Your task to perform on an android device: Add razer naga to the cart on ebay, then select checkout. Image 0: 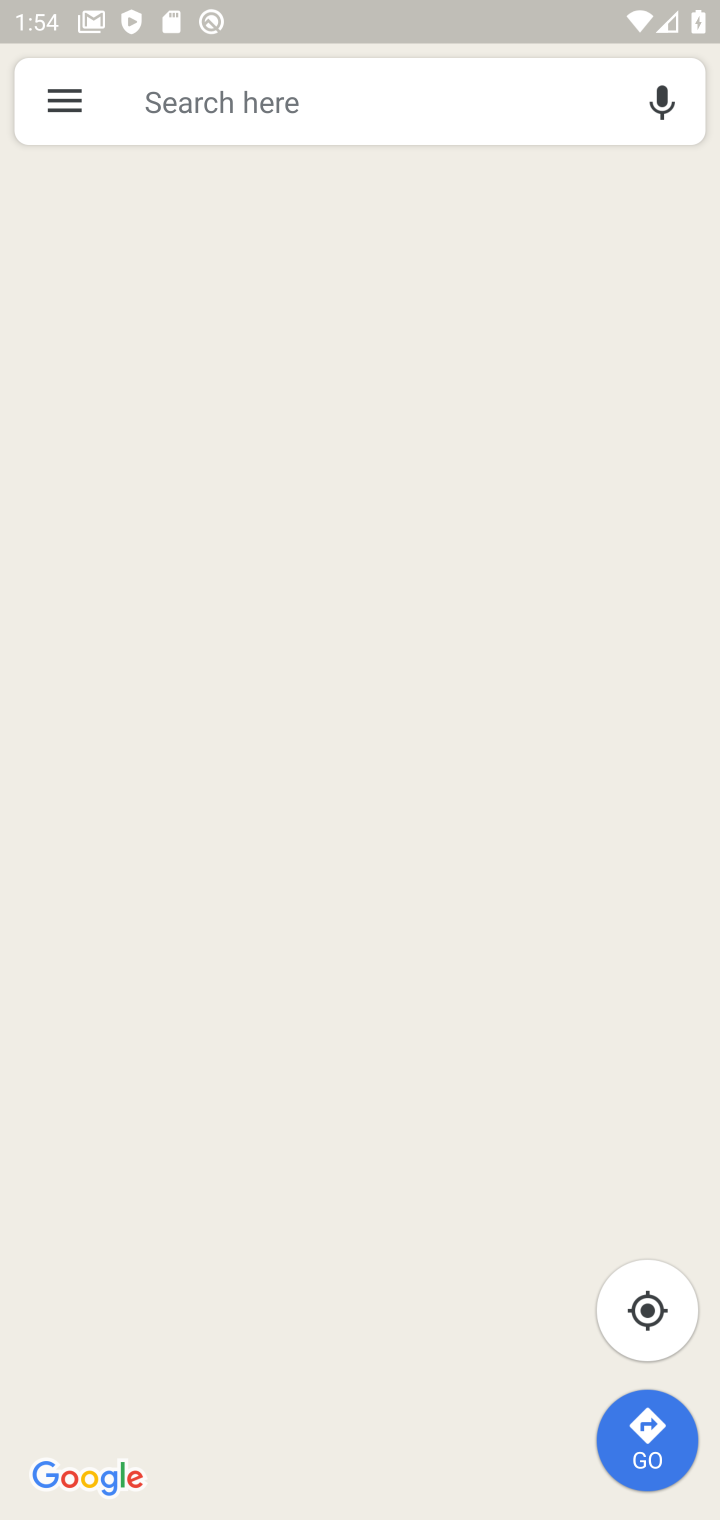
Step 0: press home button
Your task to perform on an android device: Add razer naga to the cart on ebay, then select checkout. Image 1: 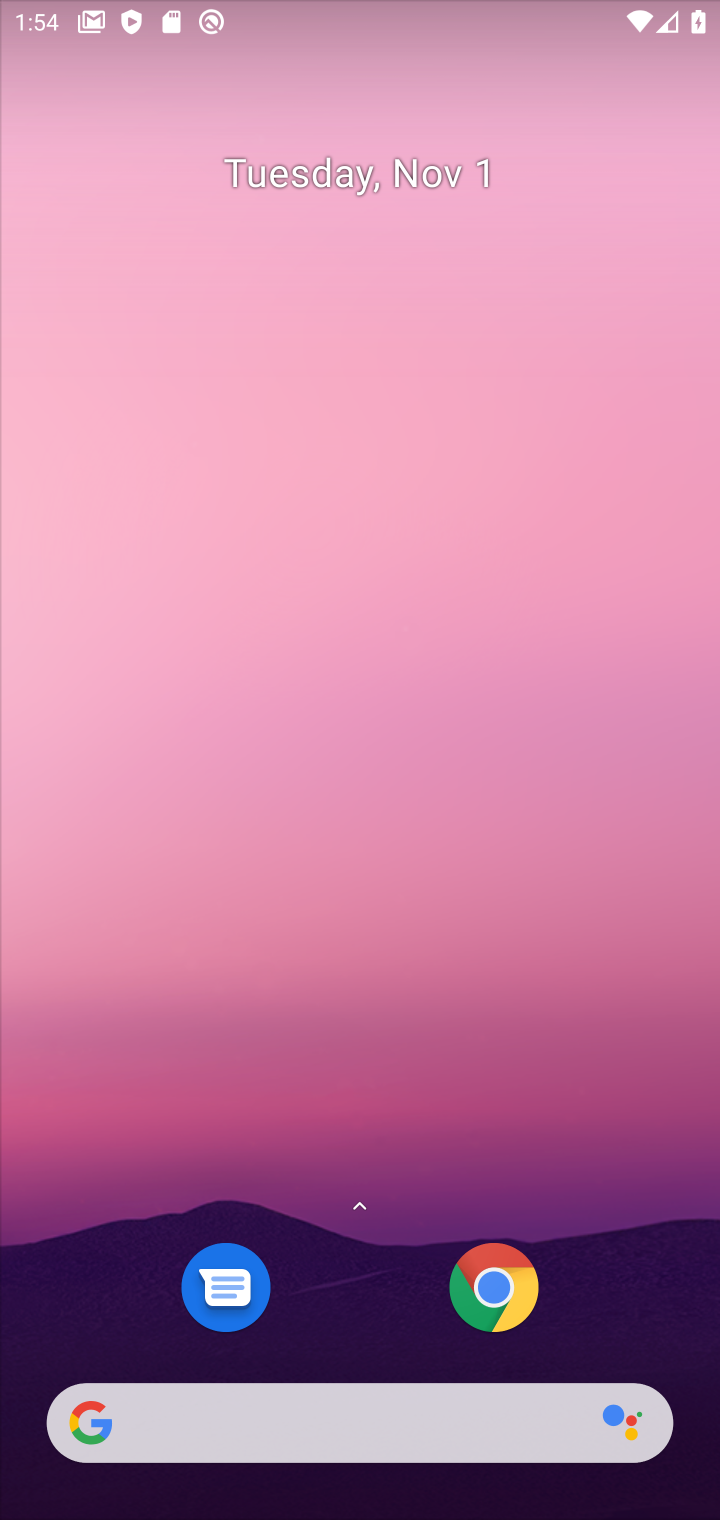
Step 1: drag from (348, 1257) to (509, 89)
Your task to perform on an android device: Add razer naga to the cart on ebay, then select checkout. Image 2: 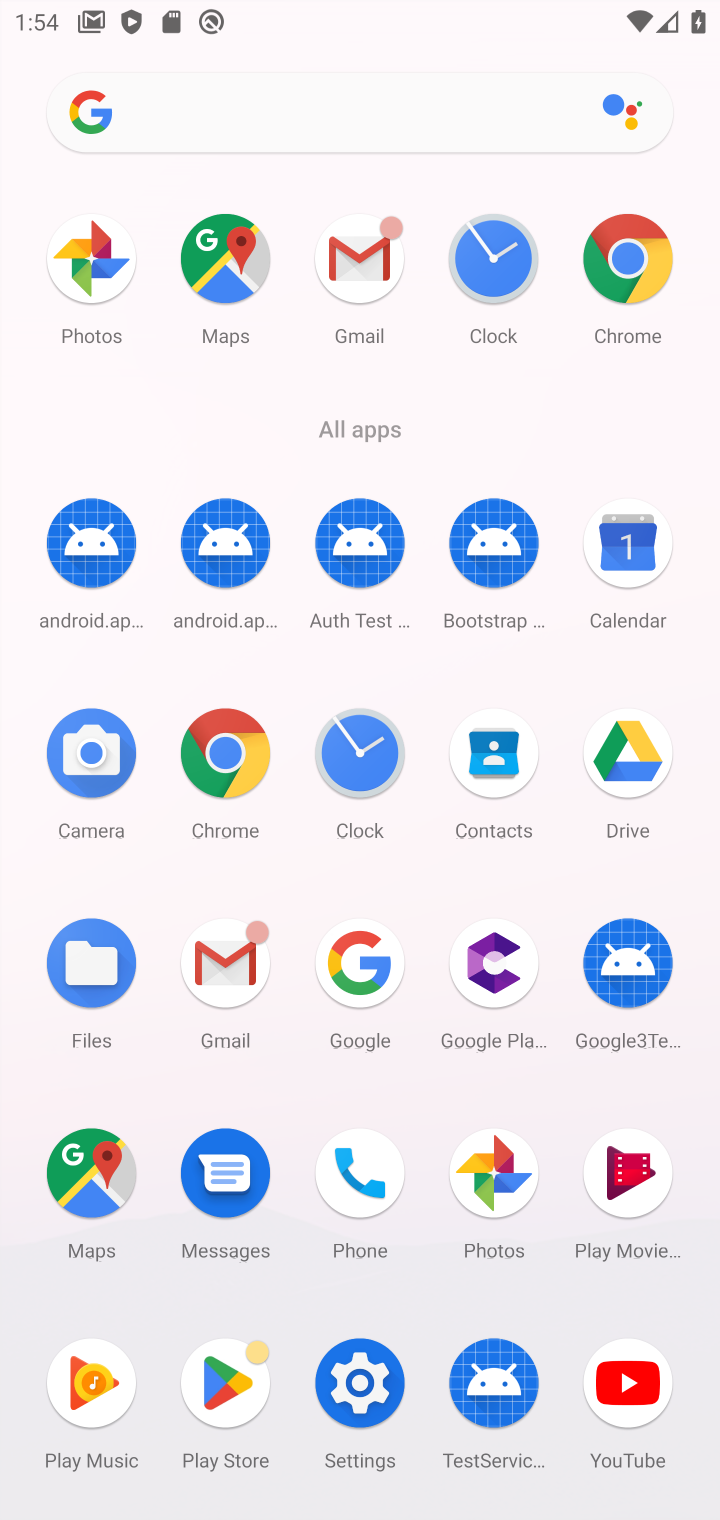
Step 2: click (219, 749)
Your task to perform on an android device: Add razer naga to the cart on ebay, then select checkout. Image 3: 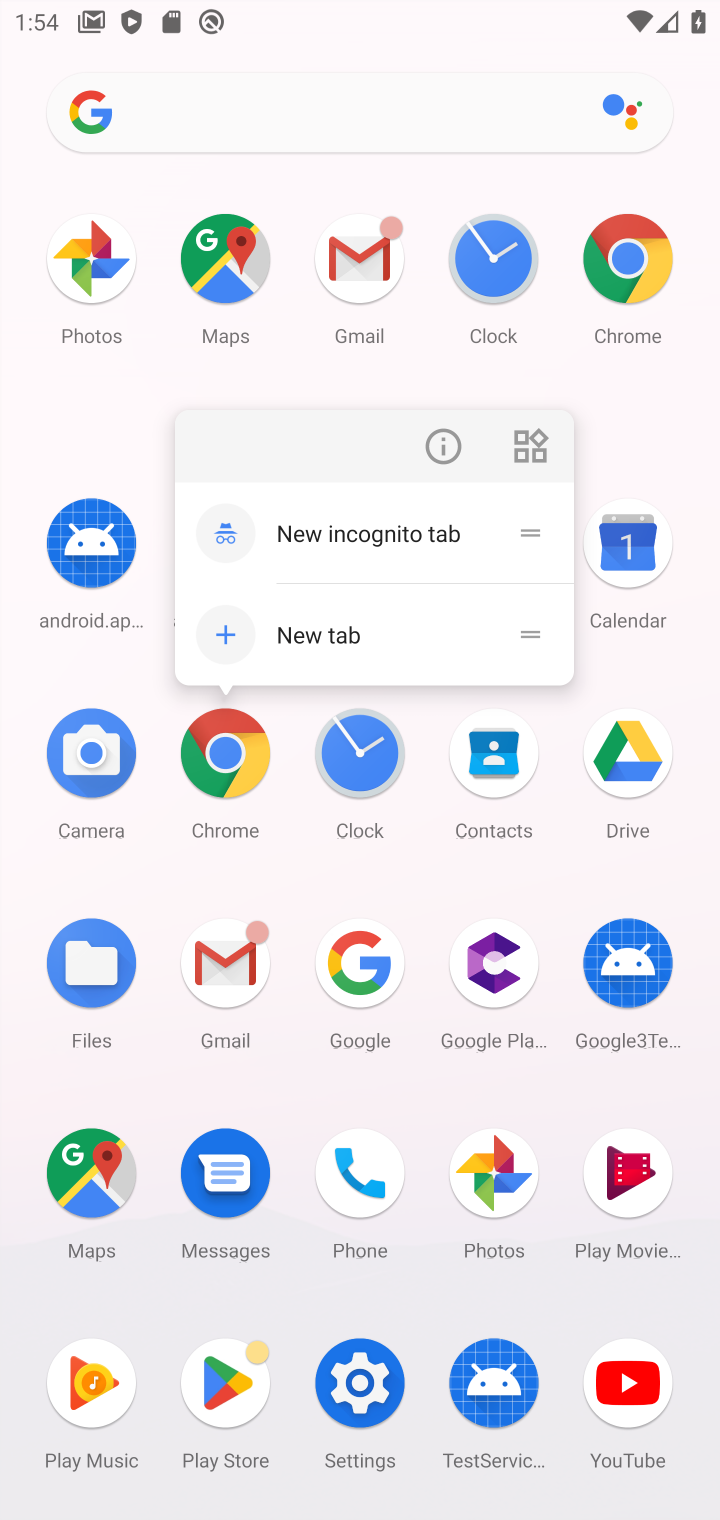
Step 3: click (227, 755)
Your task to perform on an android device: Add razer naga to the cart on ebay, then select checkout. Image 4: 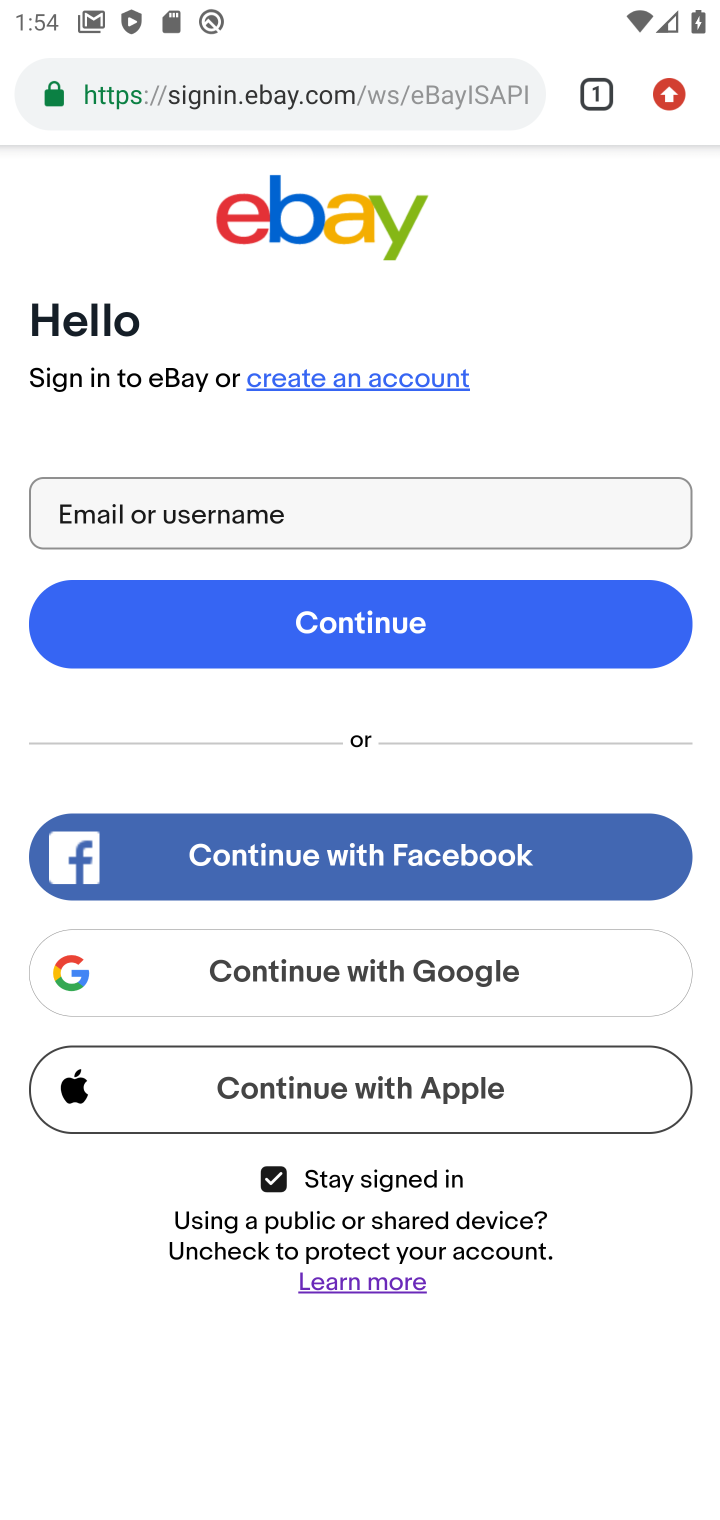
Step 4: click (348, 87)
Your task to perform on an android device: Add razer naga to the cart on ebay, then select checkout. Image 5: 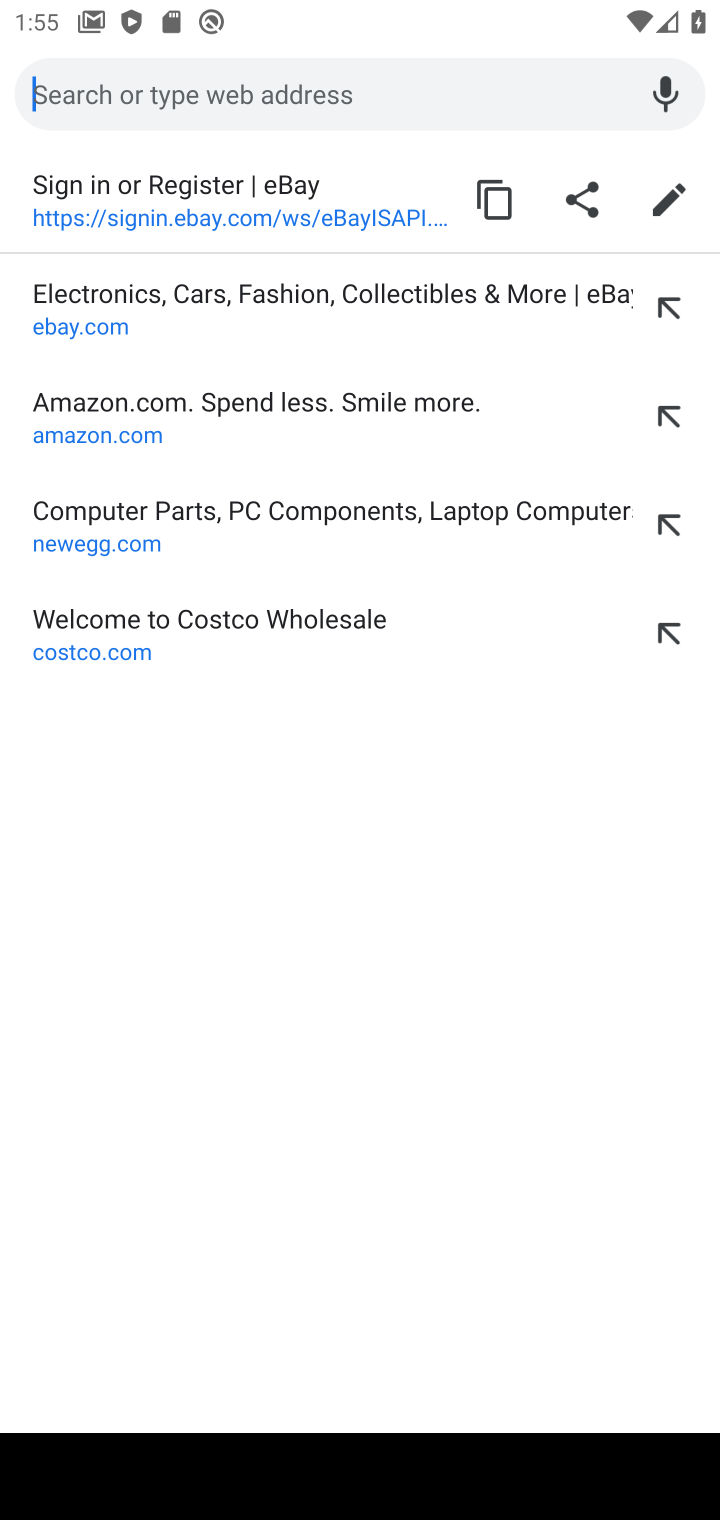
Step 5: type "ebay.com"
Your task to perform on an android device: Add razer naga to the cart on ebay, then select checkout. Image 6: 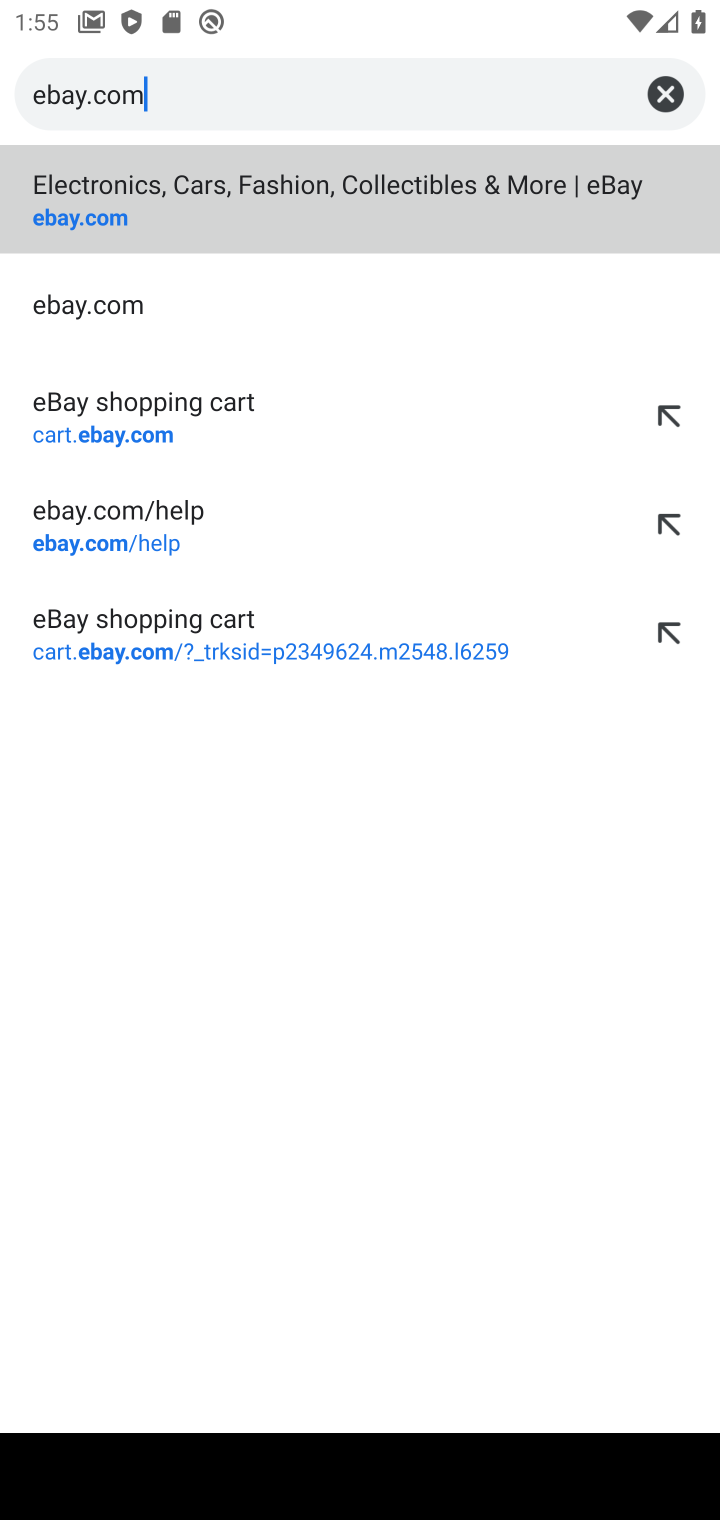
Step 6: press enter
Your task to perform on an android device: Add razer naga to the cart on ebay, then select checkout. Image 7: 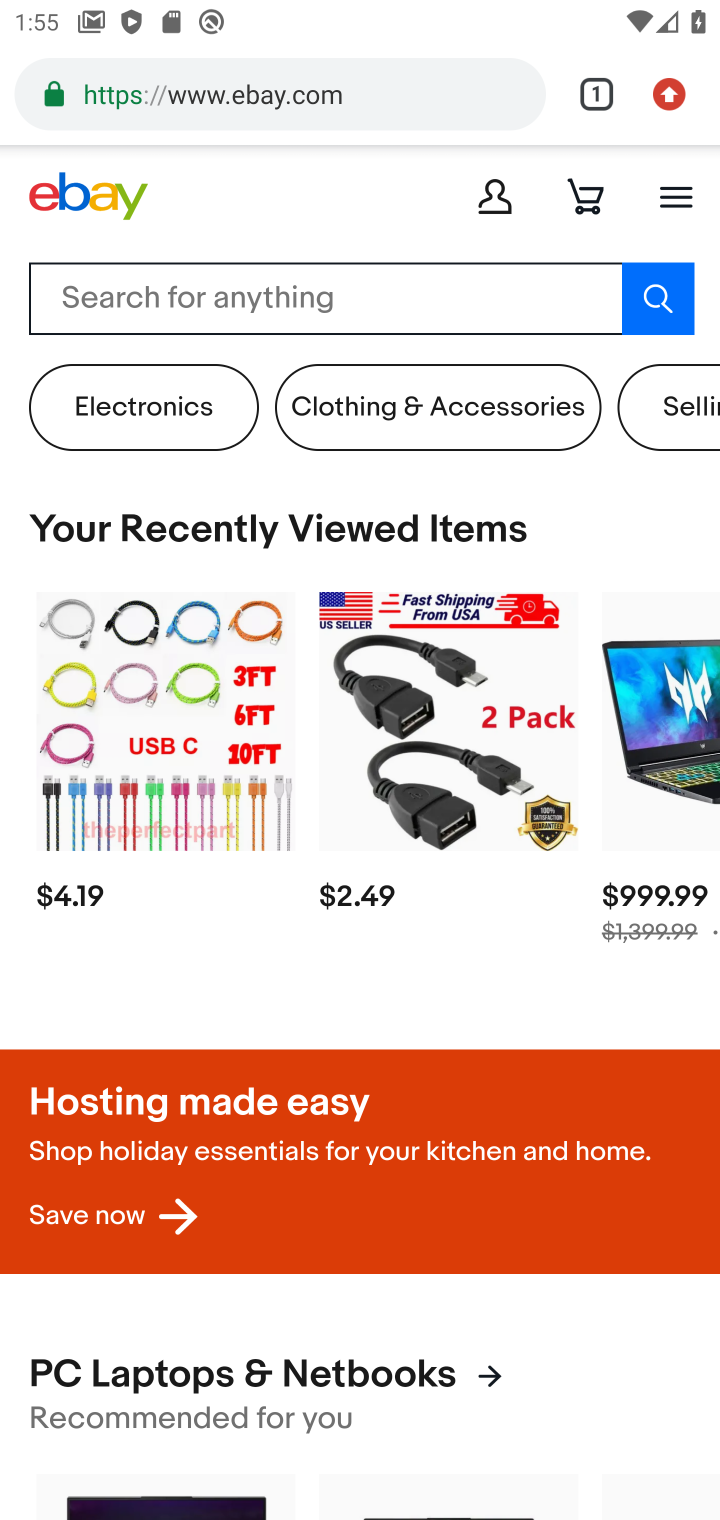
Step 7: click (310, 284)
Your task to perform on an android device: Add razer naga to the cart on ebay, then select checkout. Image 8: 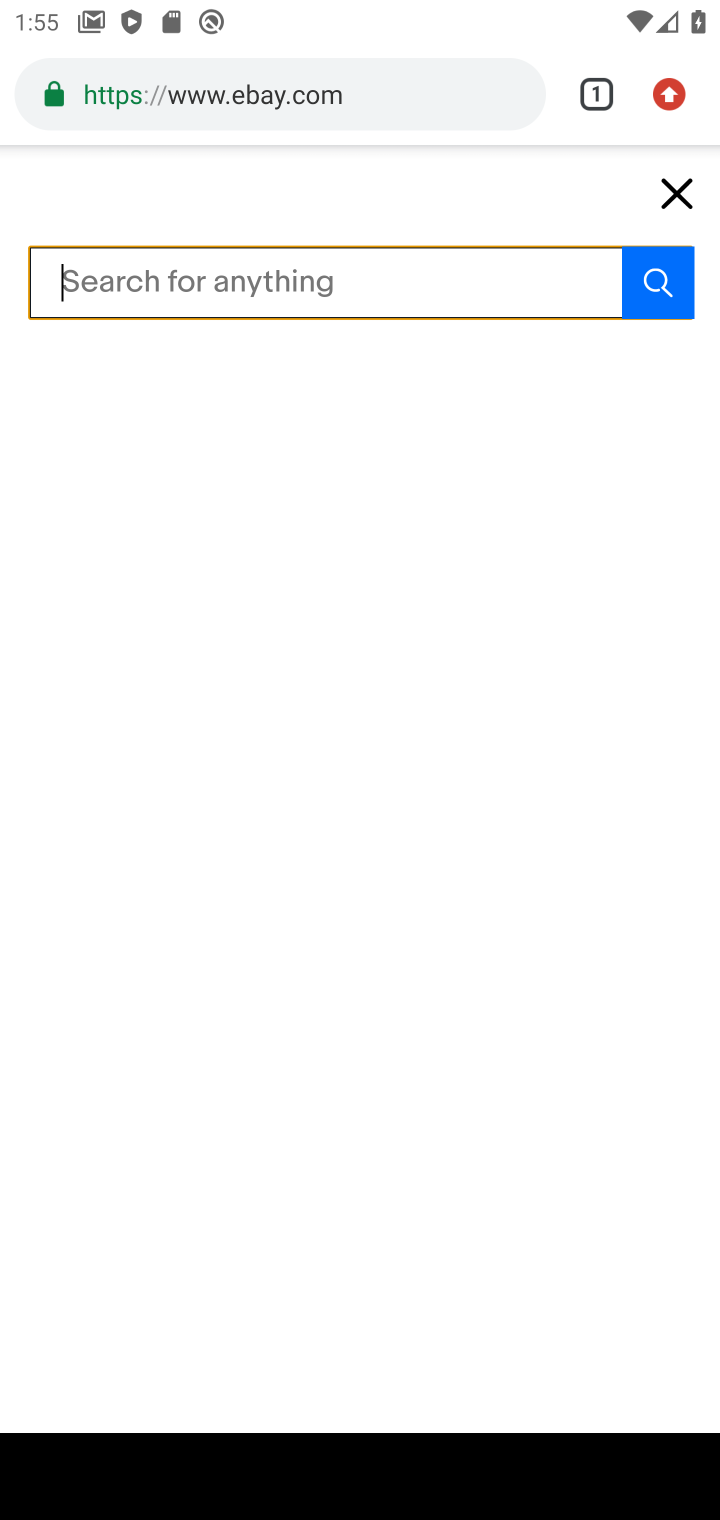
Step 8: type "razer naga"
Your task to perform on an android device: Add razer naga to the cart on ebay, then select checkout. Image 9: 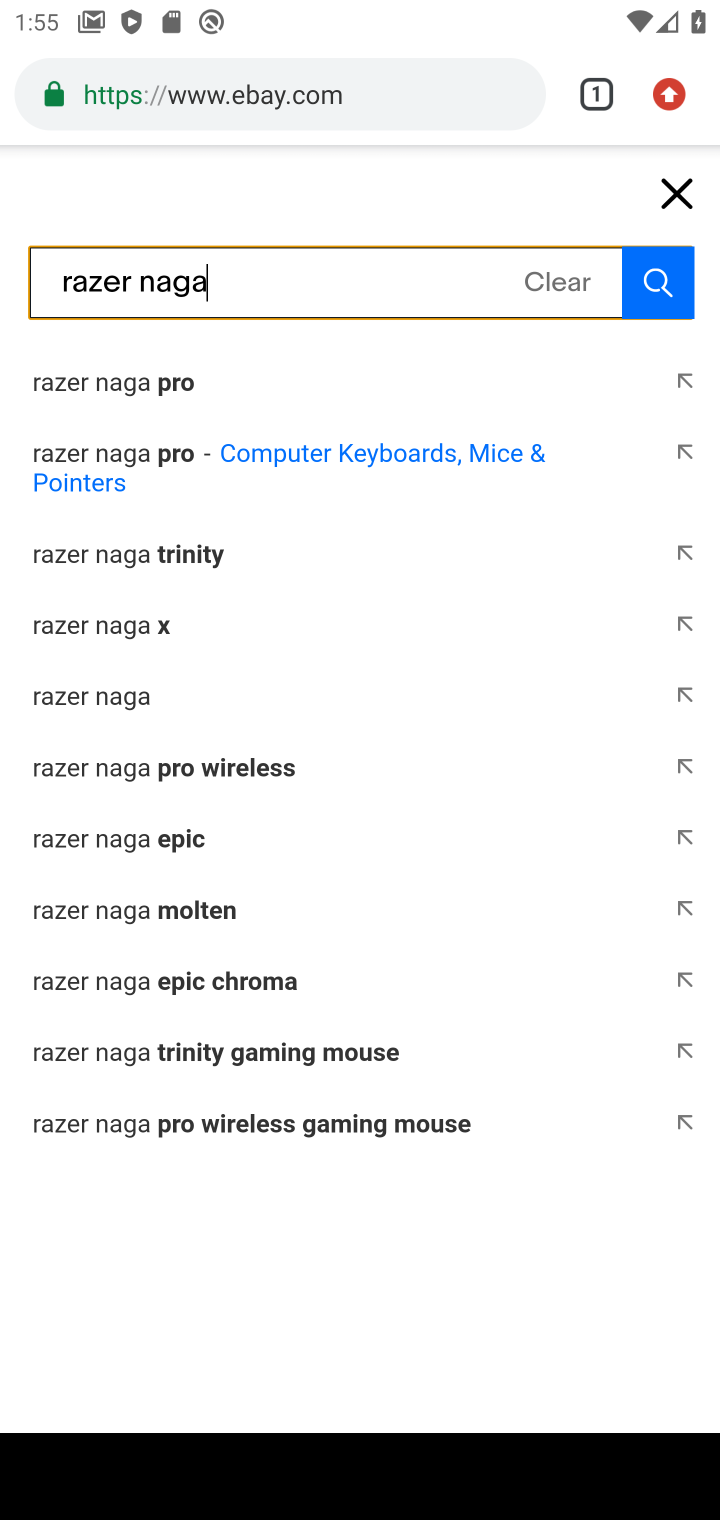
Step 9: press enter
Your task to perform on an android device: Add razer naga to the cart on ebay, then select checkout. Image 10: 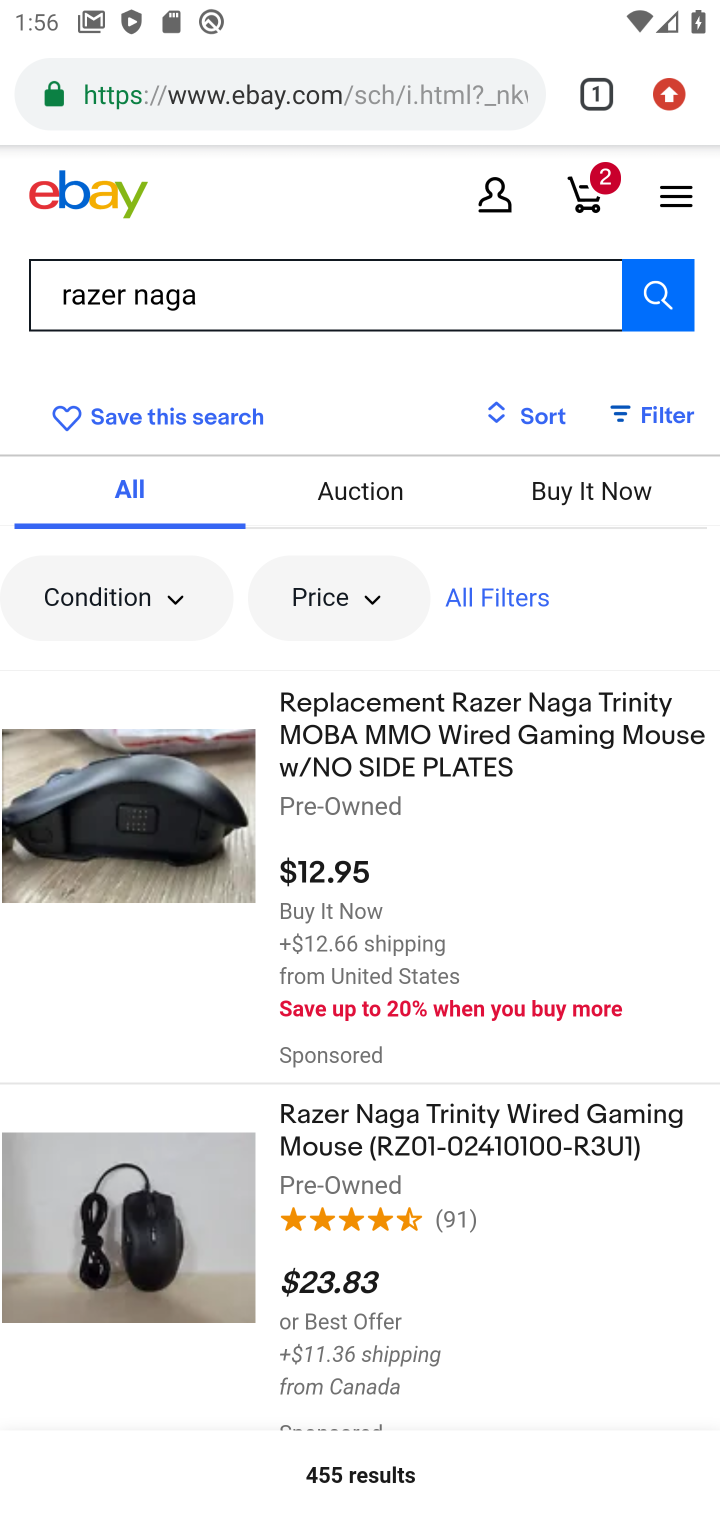
Step 10: click (360, 735)
Your task to perform on an android device: Add razer naga to the cart on ebay, then select checkout. Image 11: 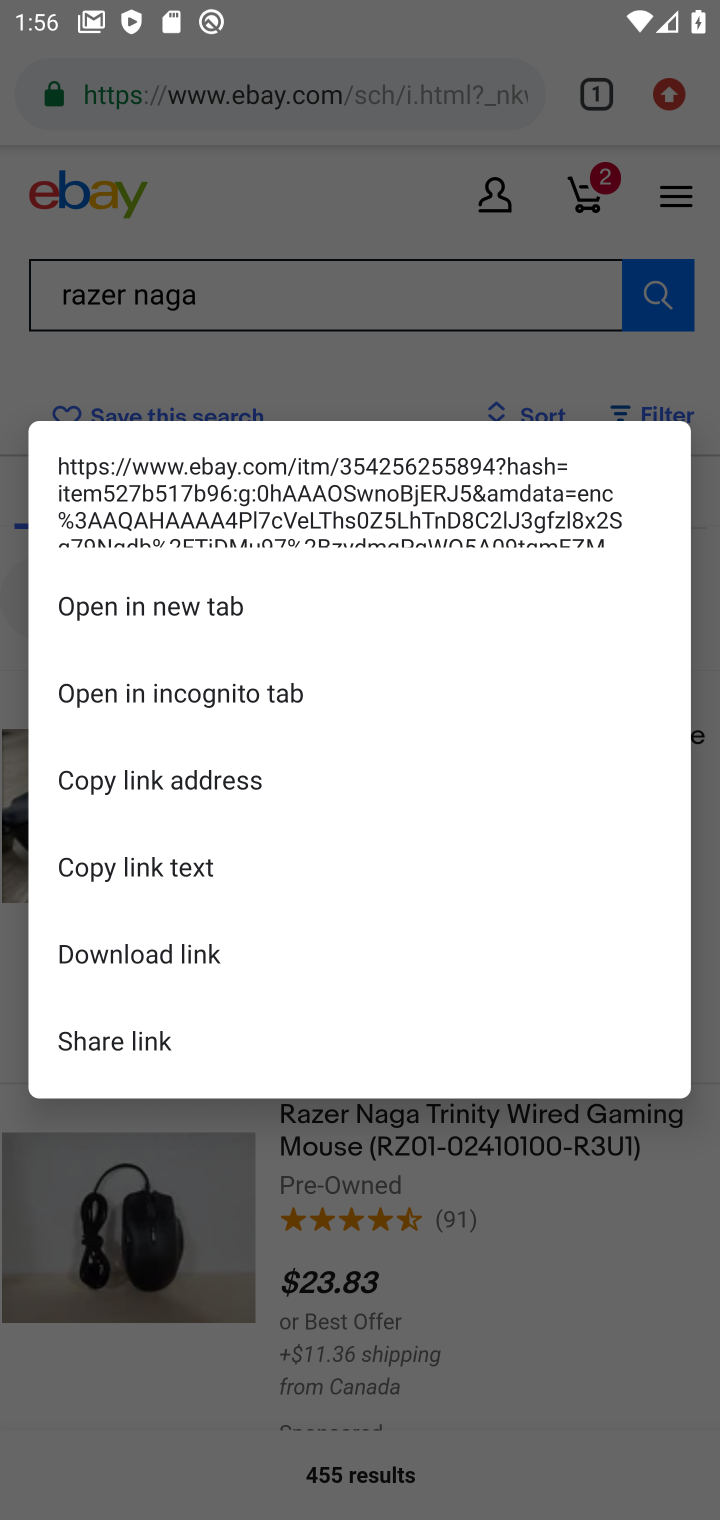
Step 11: click (369, 1221)
Your task to perform on an android device: Add razer naga to the cart on ebay, then select checkout. Image 12: 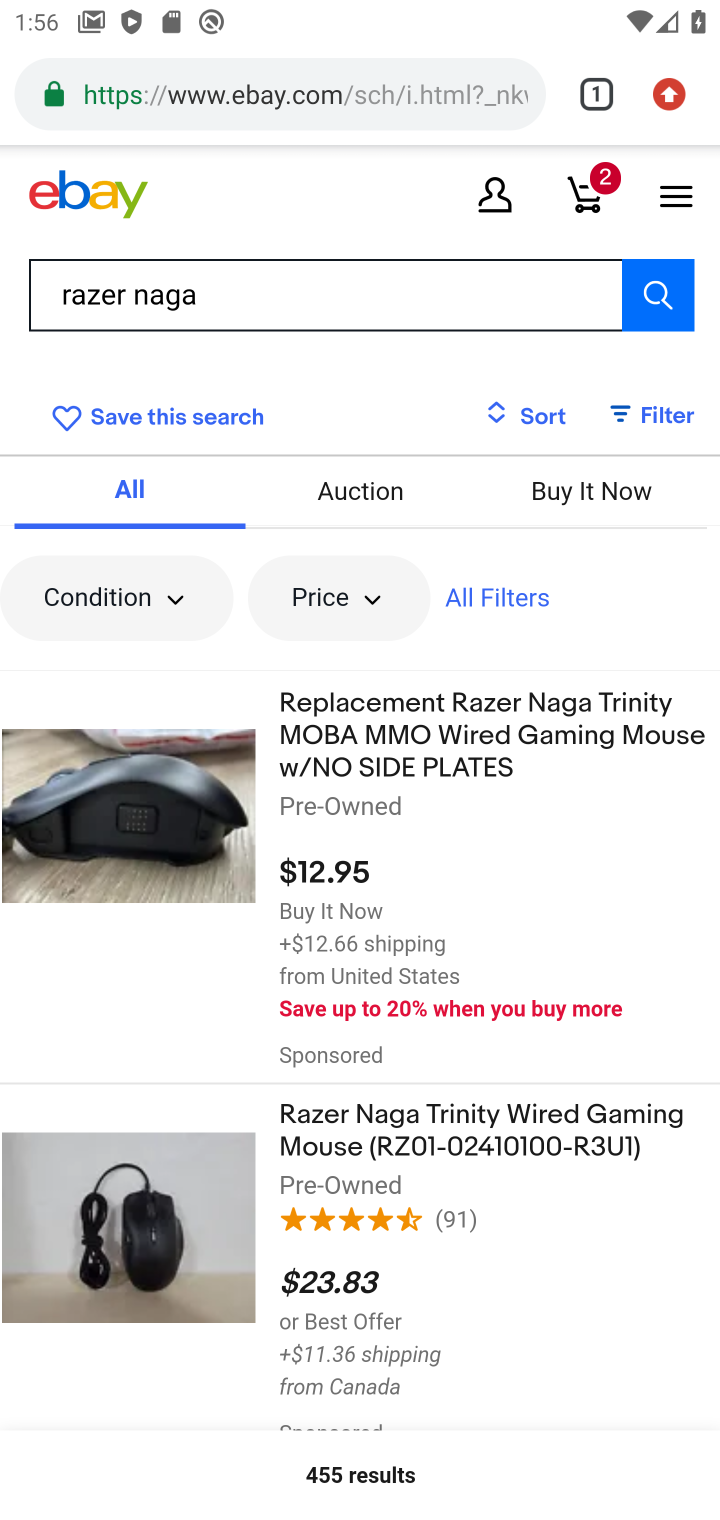
Step 12: click (347, 775)
Your task to perform on an android device: Add razer naga to the cart on ebay, then select checkout. Image 13: 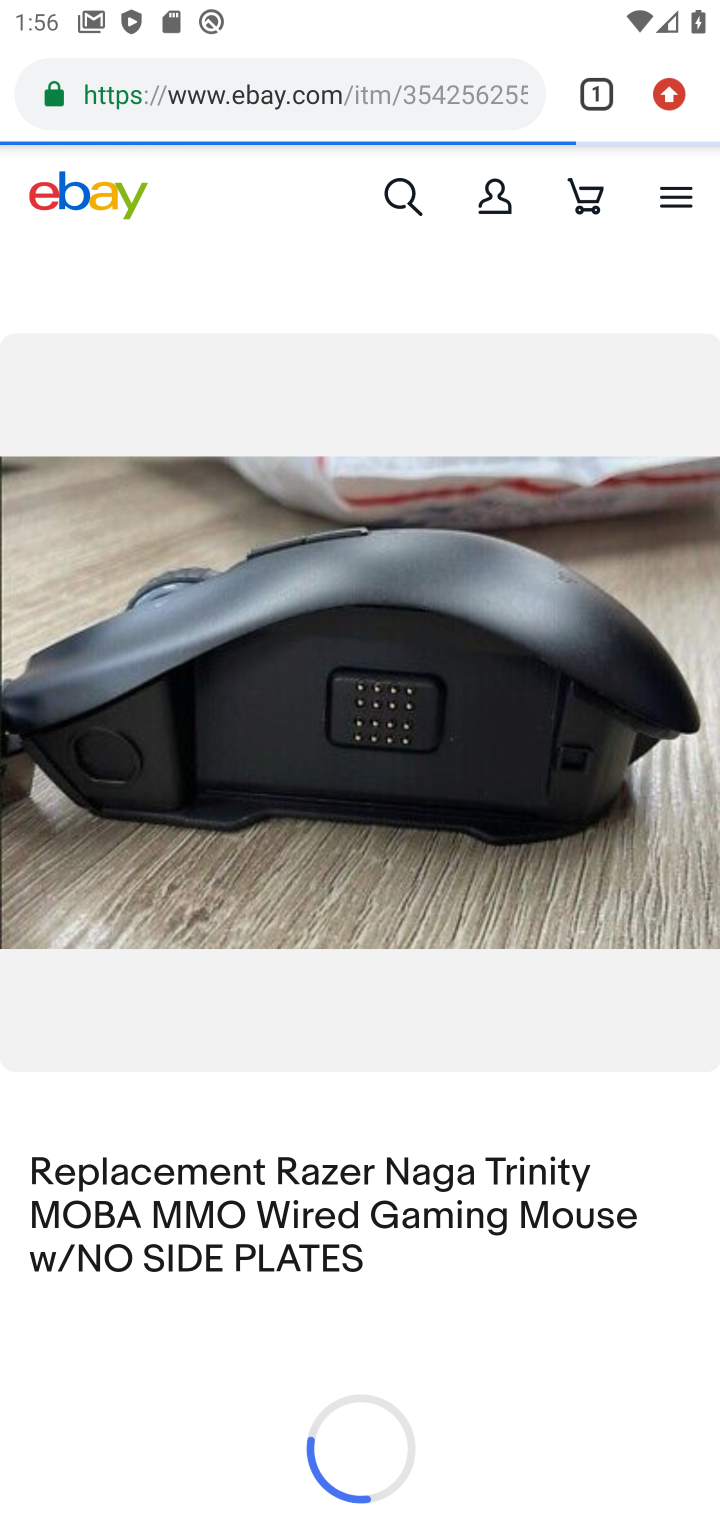
Step 13: drag from (340, 1209) to (399, 344)
Your task to perform on an android device: Add razer naga to the cart on ebay, then select checkout. Image 14: 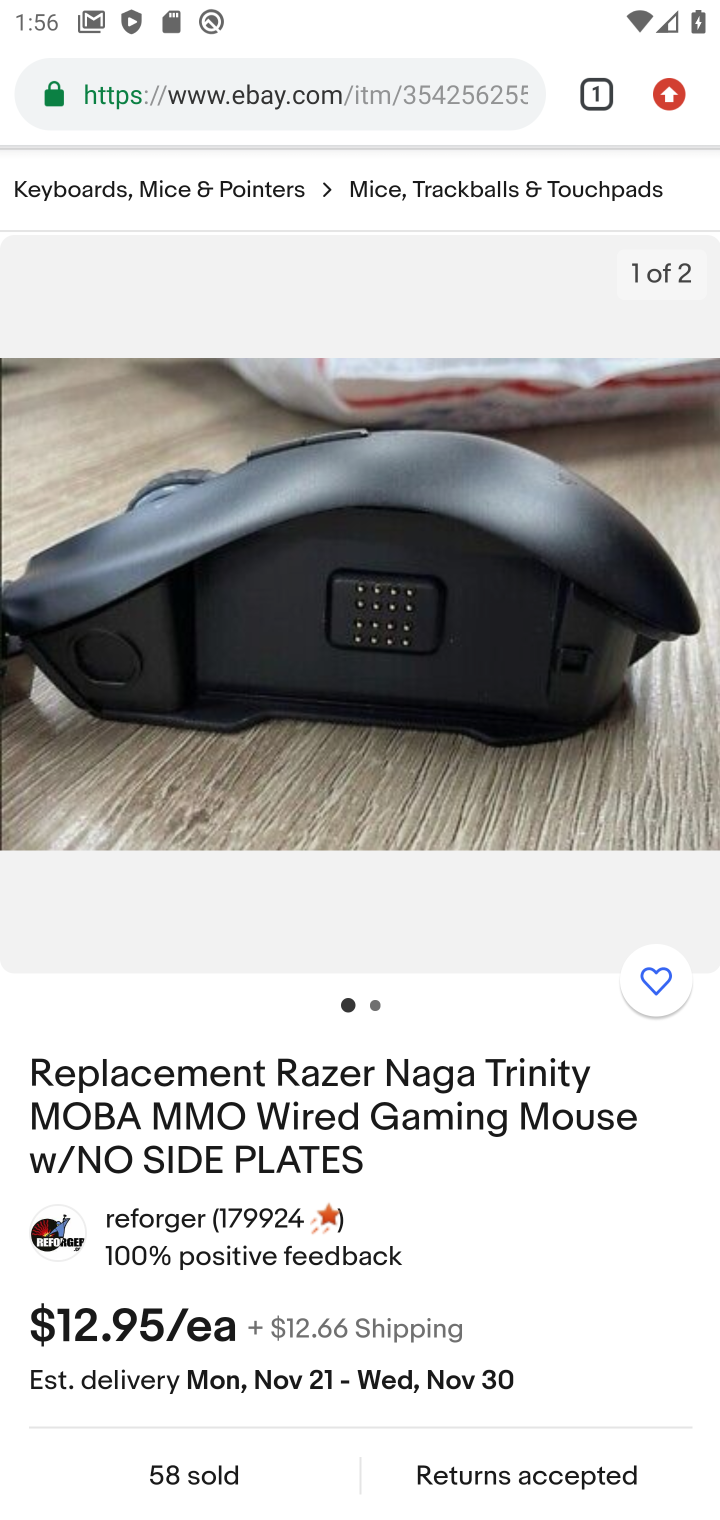
Step 14: drag from (347, 1165) to (444, 319)
Your task to perform on an android device: Add razer naga to the cart on ebay, then select checkout. Image 15: 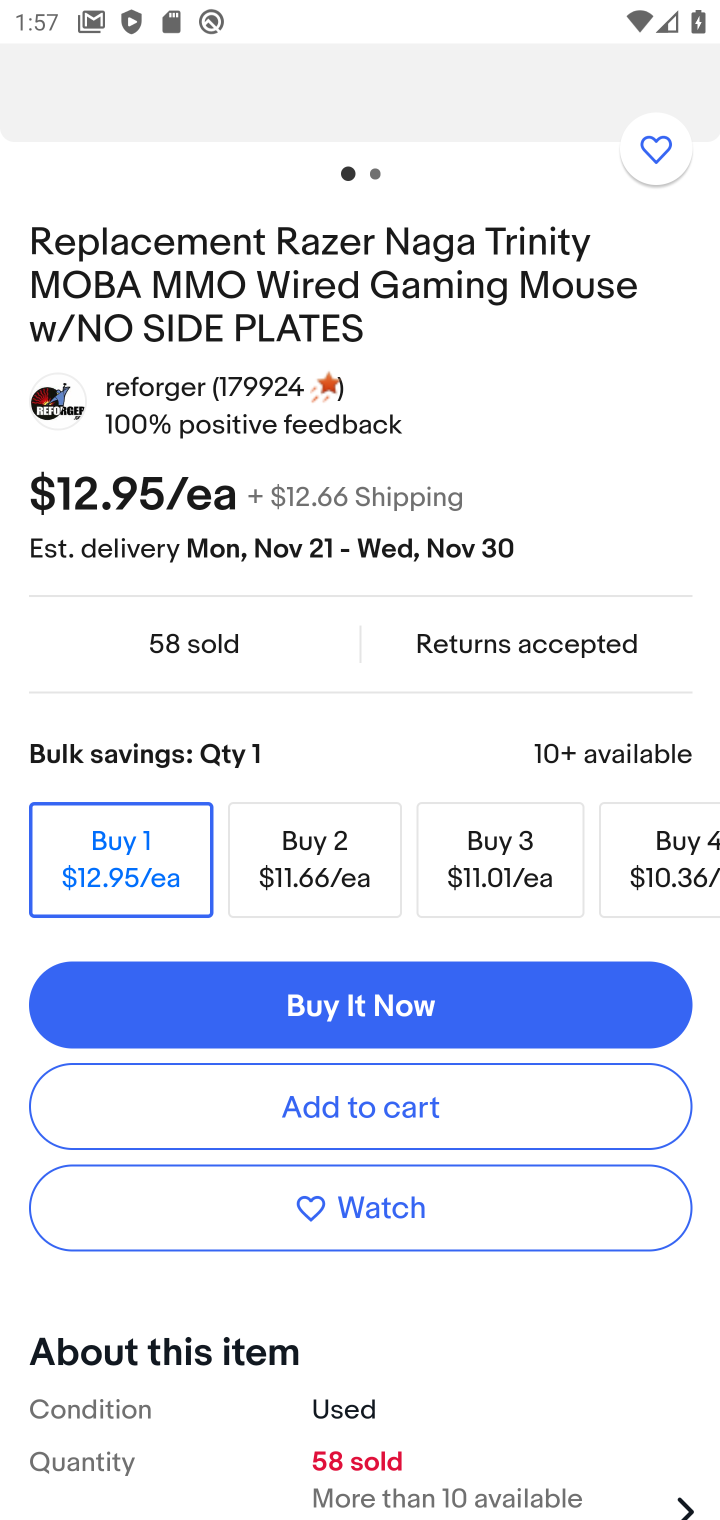
Step 15: click (442, 1114)
Your task to perform on an android device: Add razer naga to the cart on ebay, then select checkout. Image 16: 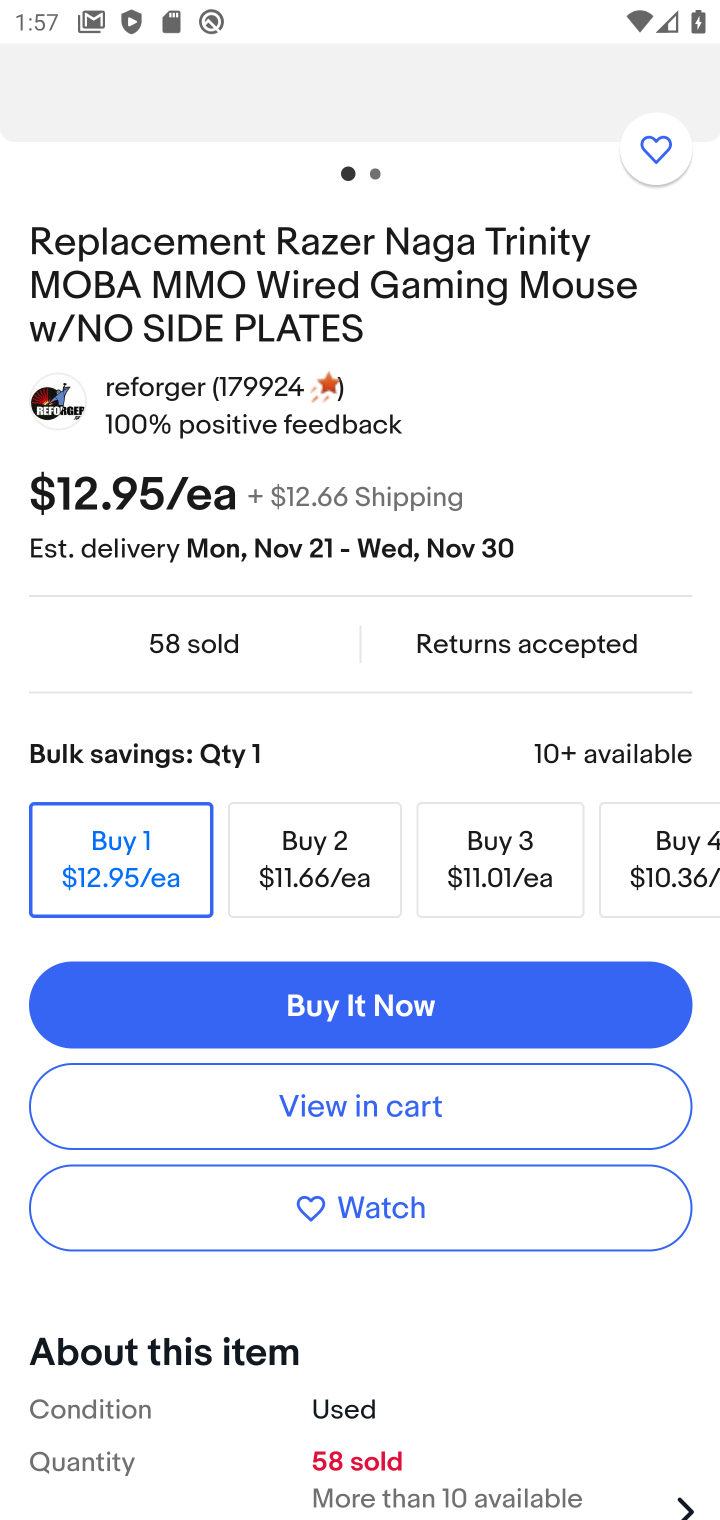
Step 16: click (413, 1115)
Your task to perform on an android device: Add razer naga to the cart on ebay, then select checkout. Image 17: 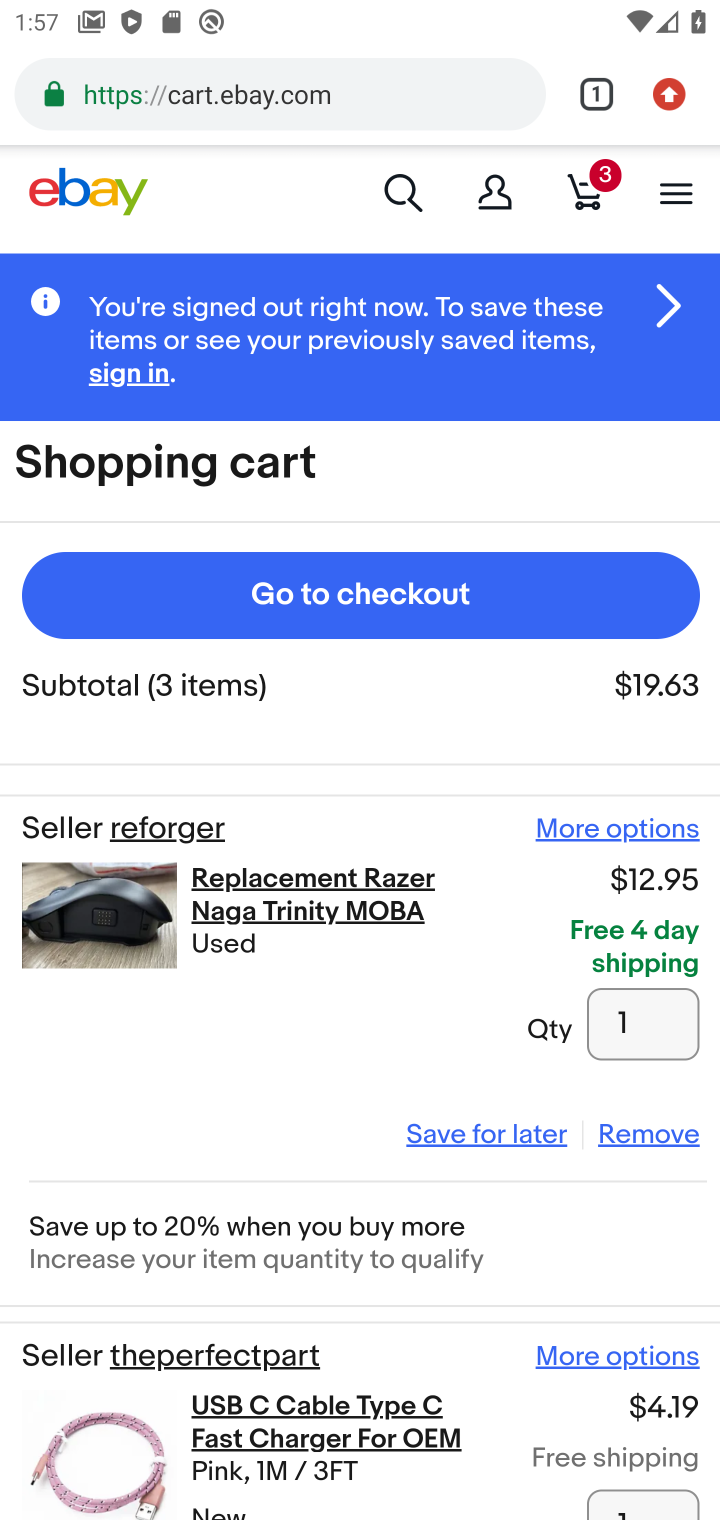
Step 17: click (468, 609)
Your task to perform on an android device: Add razer naga to the cart on ebay, then select checkout. Image 18: 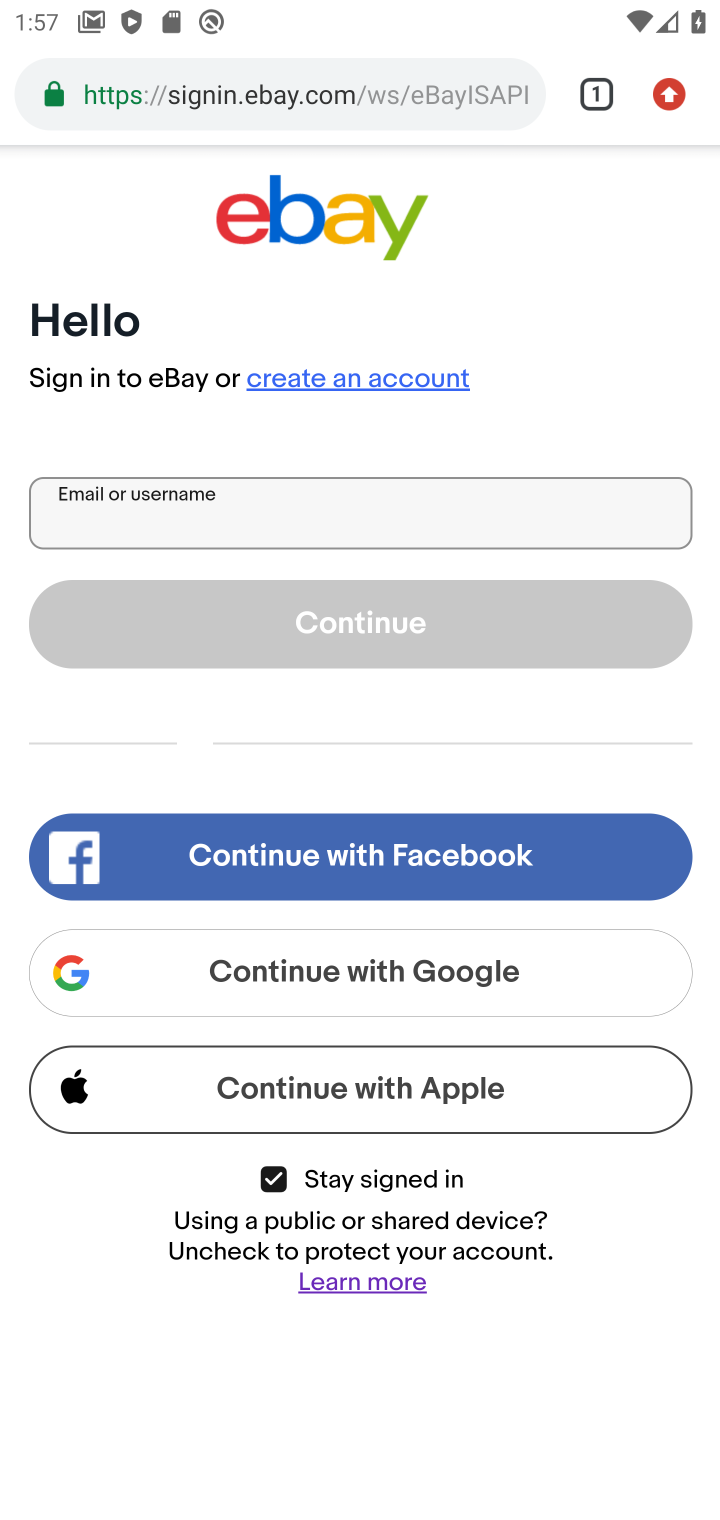
Step 18: task complete